Your task to perform on an android device: change timer sound Image 0: 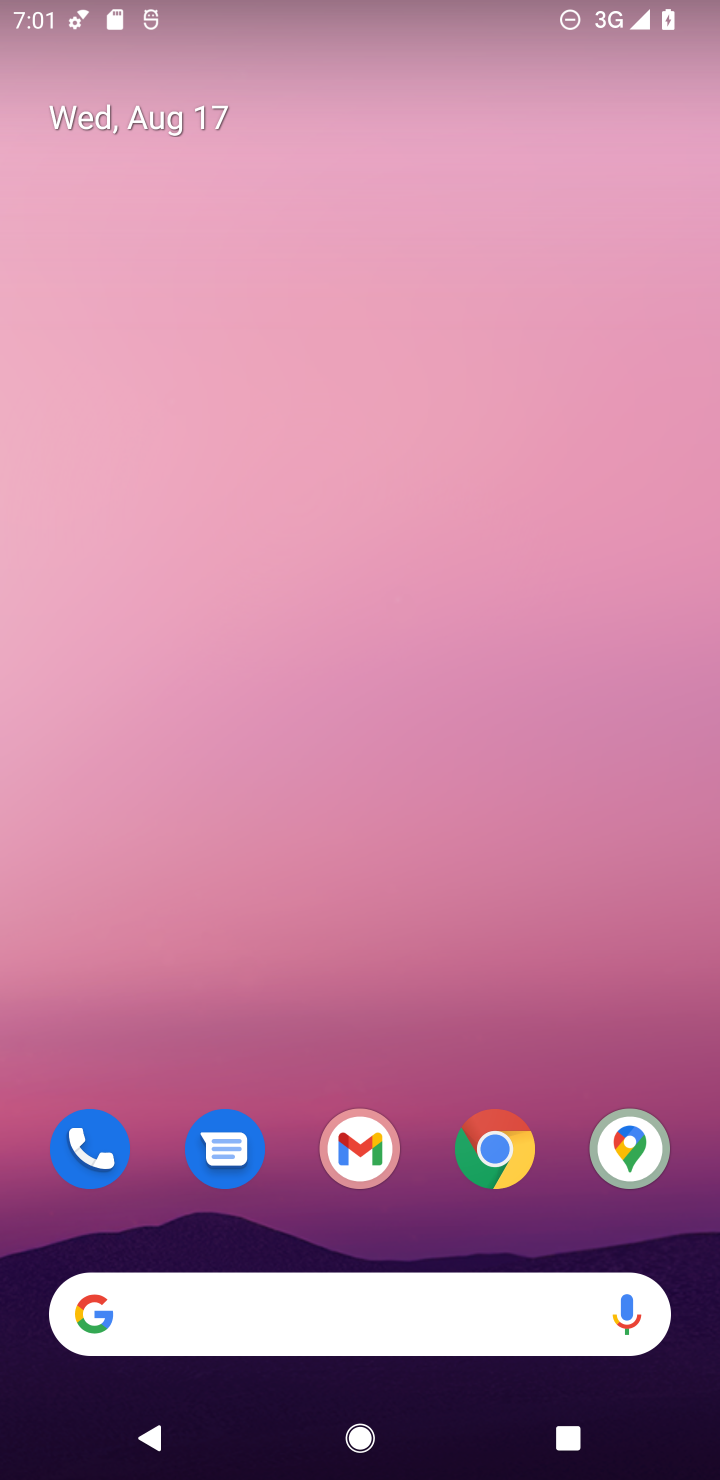
Step 0: drag from (421, 1217) to (301, 338)
Your task to perform on an android device: change timer sound Image 1: 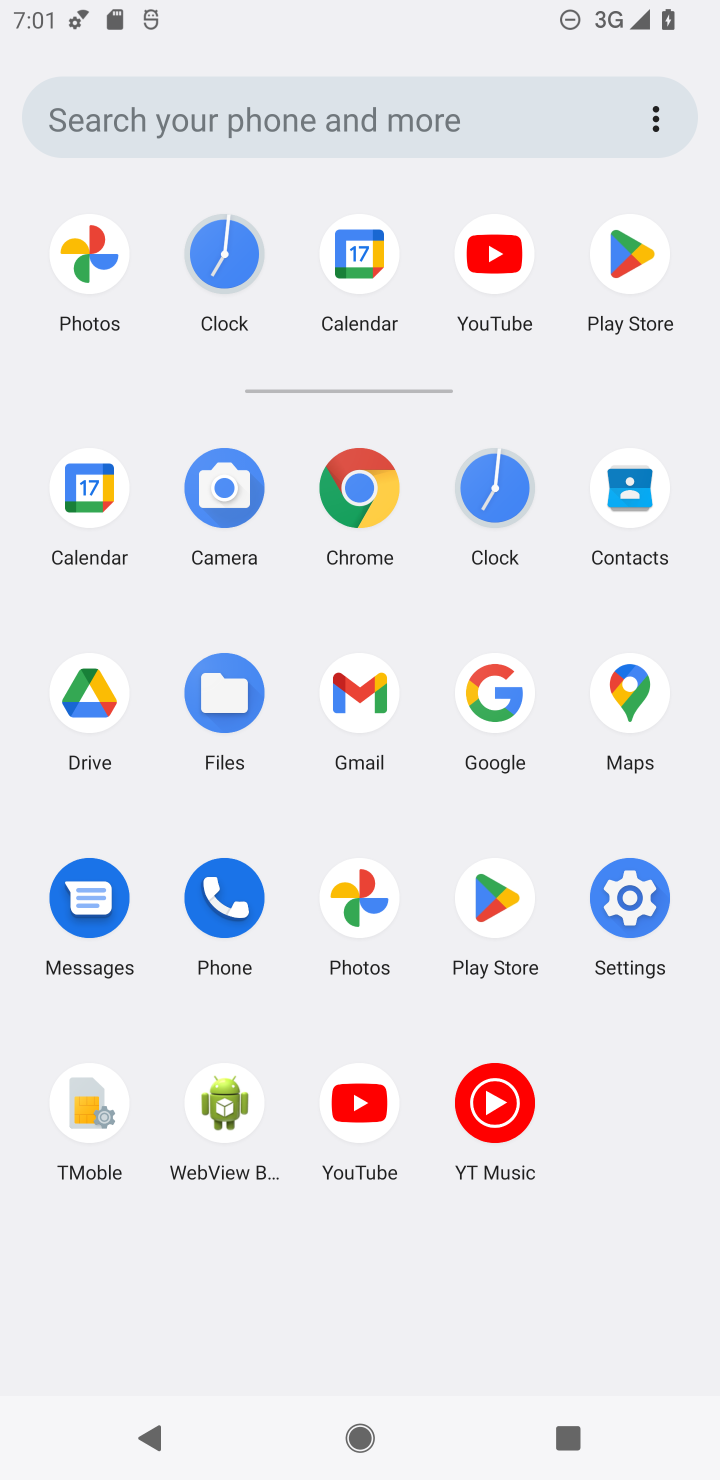
Step 1: click (237, 257)
Your task to perform on an android device: change timer sound Image 2: 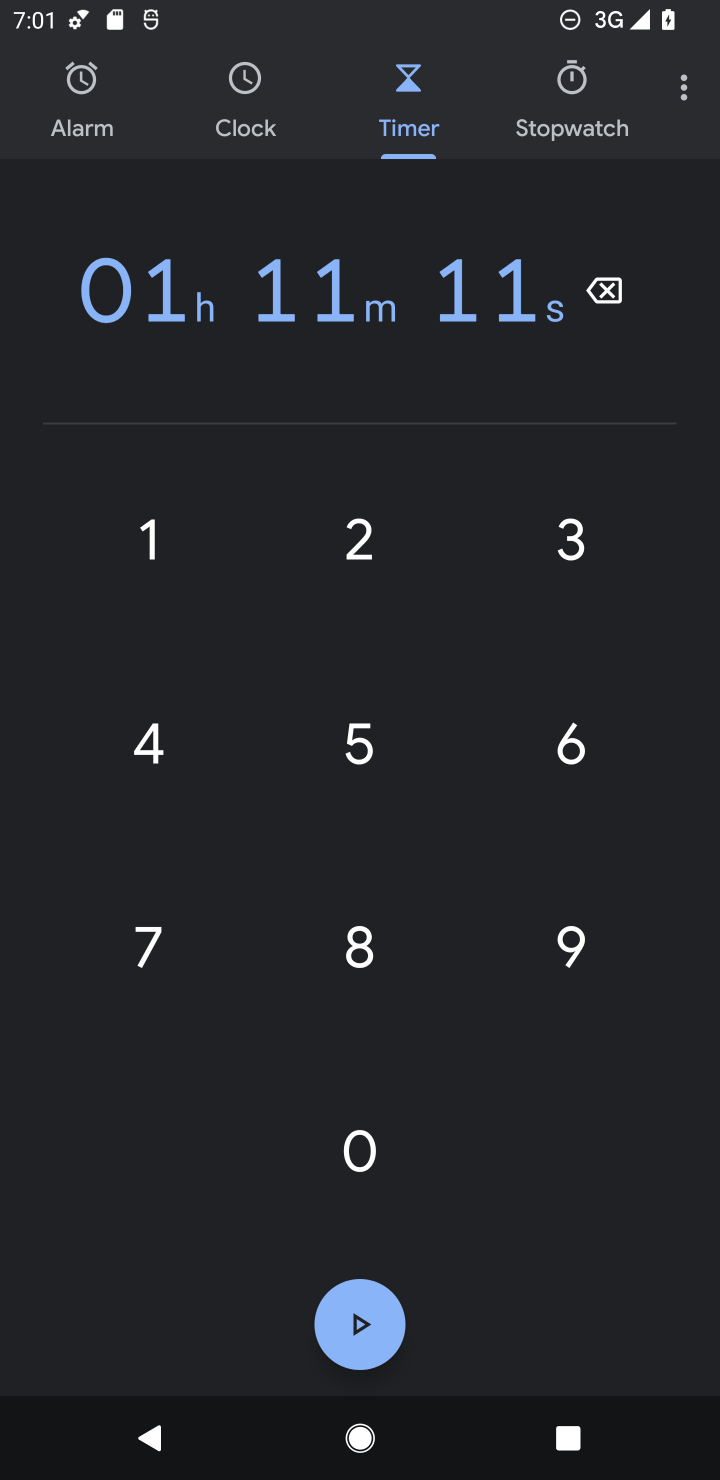
Step 2: click (687, 95)
Your task to perform on an android device: change timer sound Image 3: 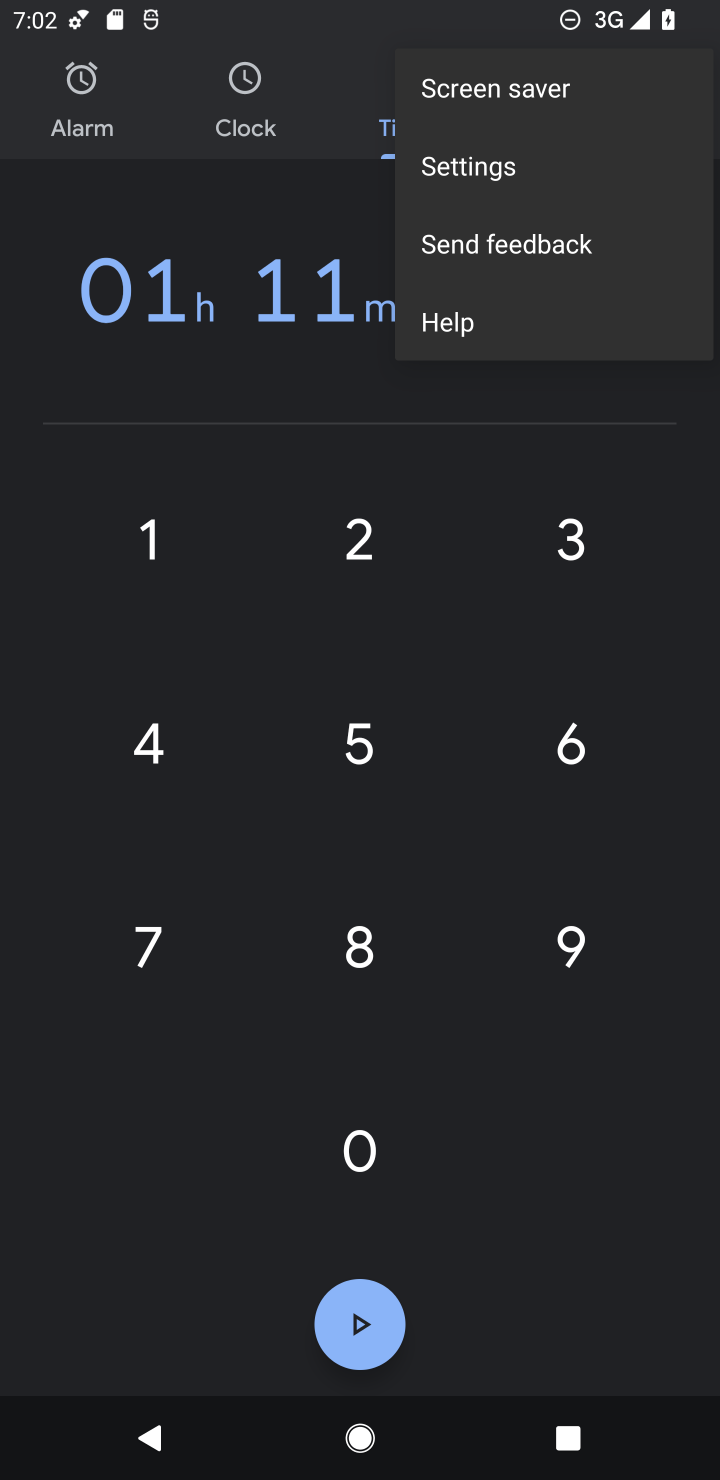
Step 3: click (451, 166)
Your task to perform on an android device: change timer sound Image 4: 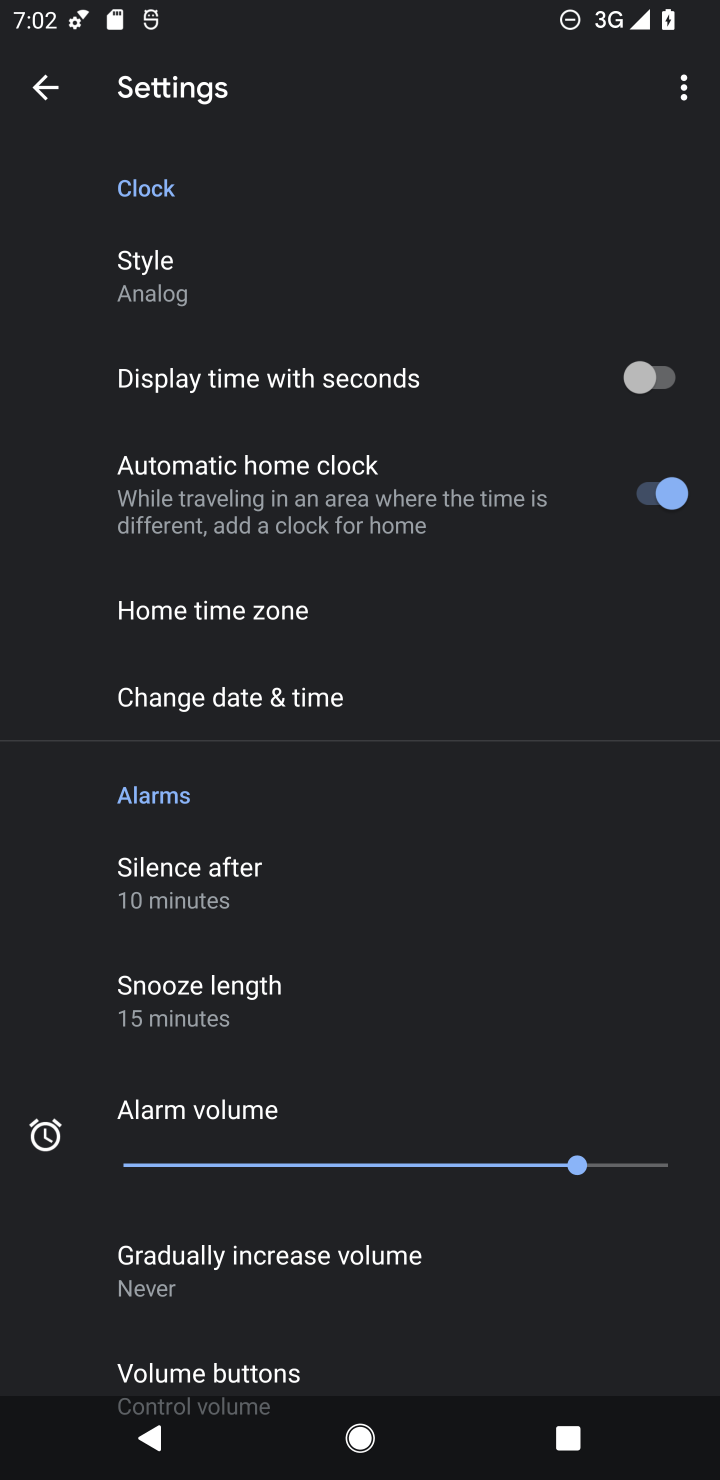
Step 4: drag from (431, 986) to (372, 582)
Your task to perform on an android device: change timer sound Image 5: 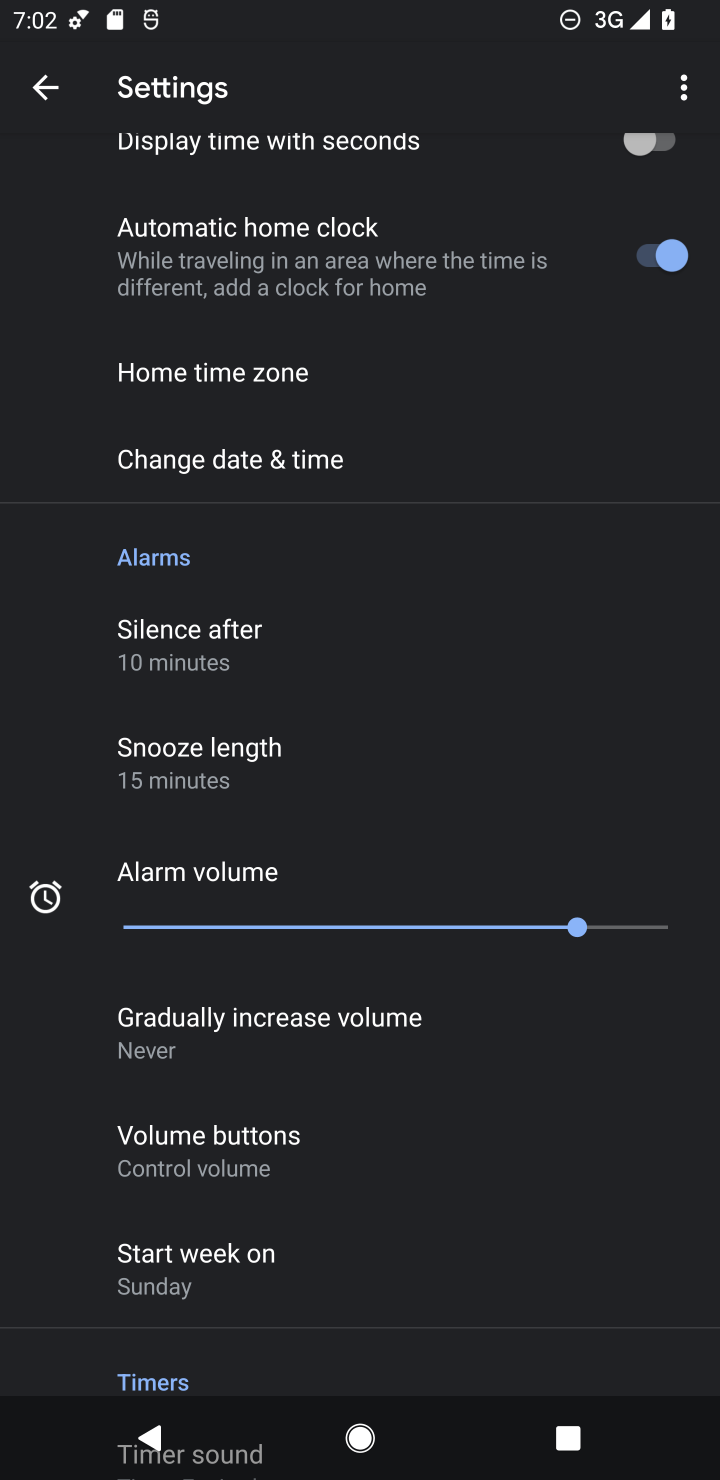
Step 5: drag from (423, 1238) to (408, 912)
Your task to perform on an android device: change timer sound Image 6: 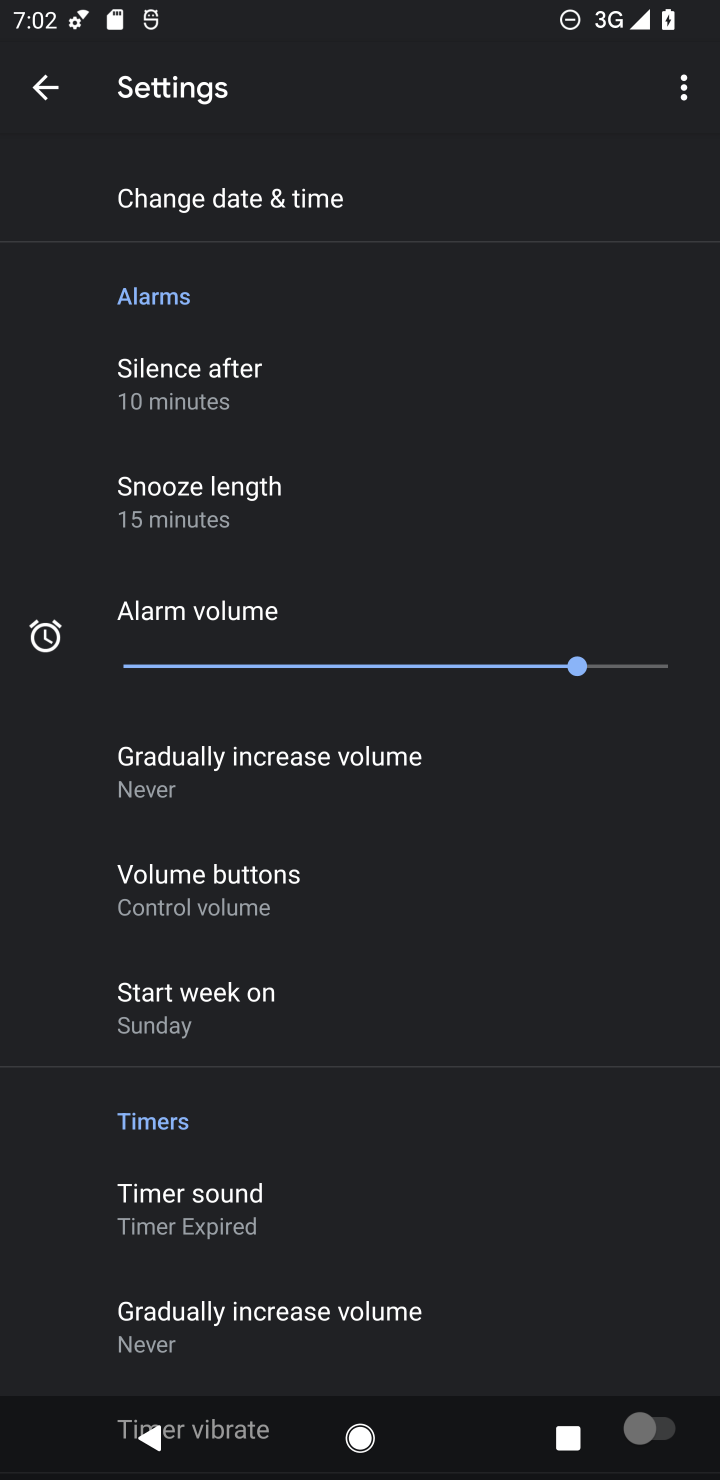
Step 6: click (220, 1203)
Your task to perform on an android device: change timer sound Image 7: 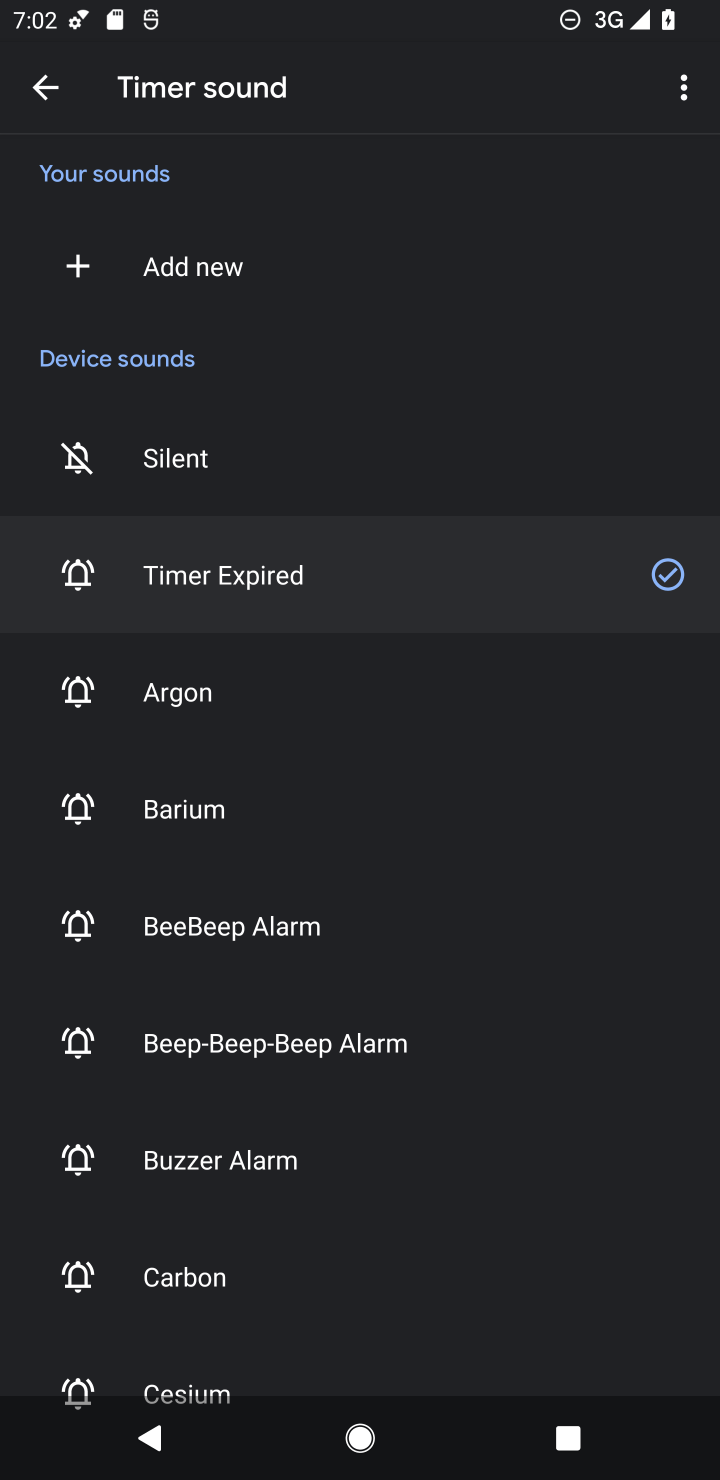
Step 7: click (269, 711)
Your task to perform on an android device: change timer sound Image 8: 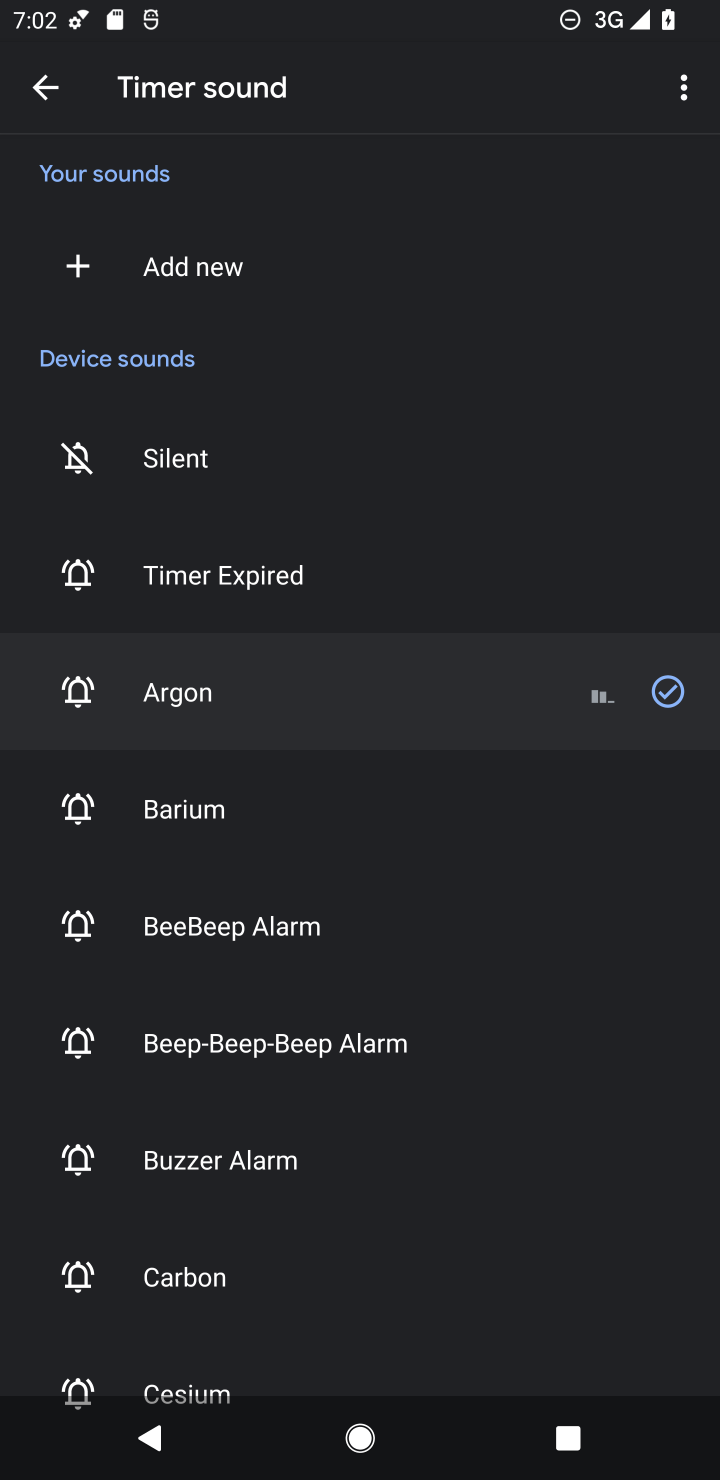
Step 8: task complete